Your task to perform on an android device: Go to location settings Image 0: 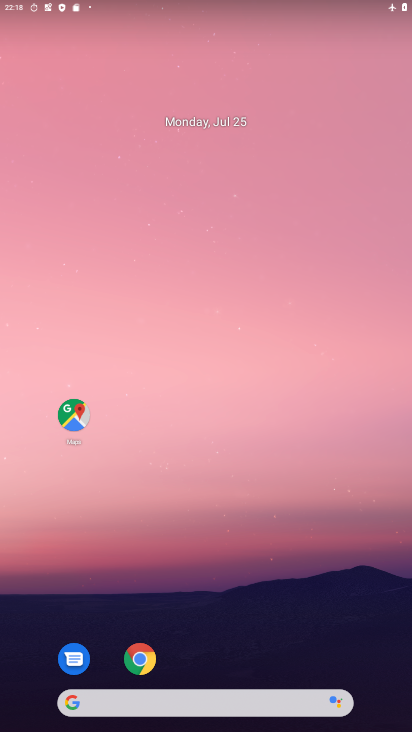
Step 0: drag from (213, 660) to (167, 272)
Your task to perform on an android device: Go to location settings Image 1: 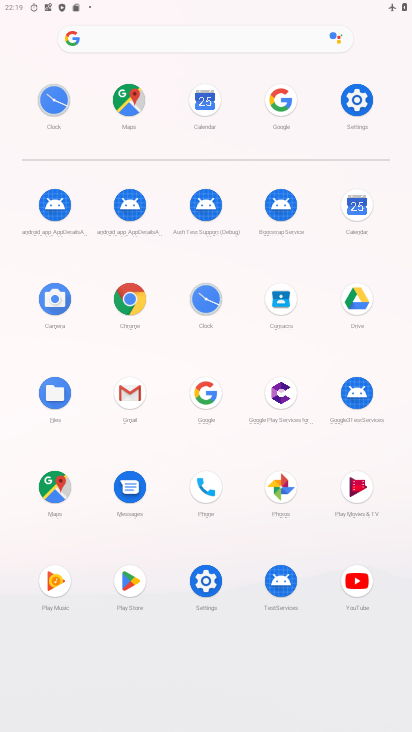
Step 1: click (366, 100)
Your task to perform on an android device: Go to location settings Image 2: 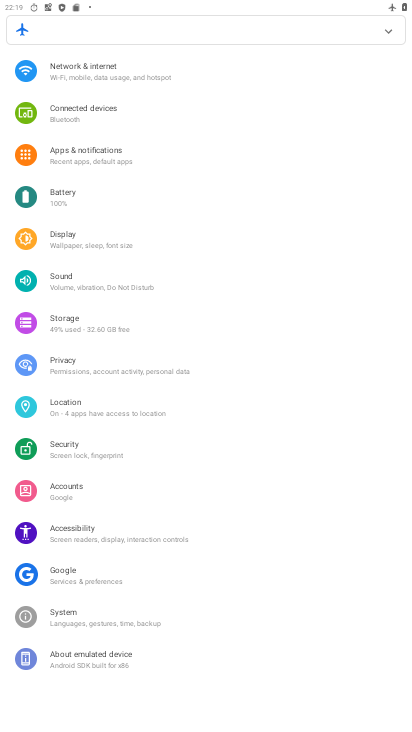
Step 2: click (119, 411)
Your task to perform on an android device: Go to location settings Image 3: 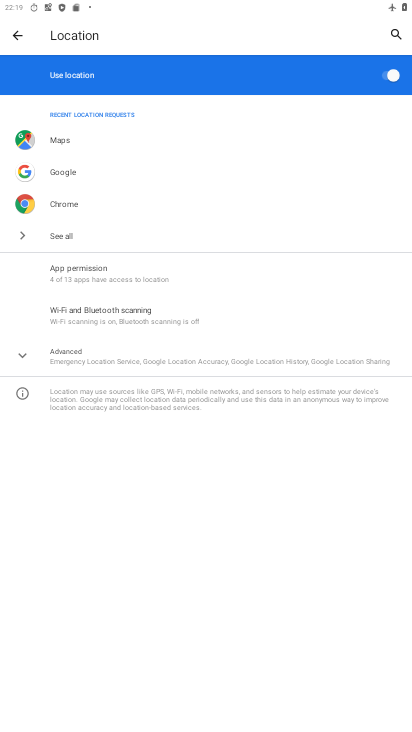
Step 3: task complete